Your task to perform on an android device: delete a single message in the gmail app Image 0: 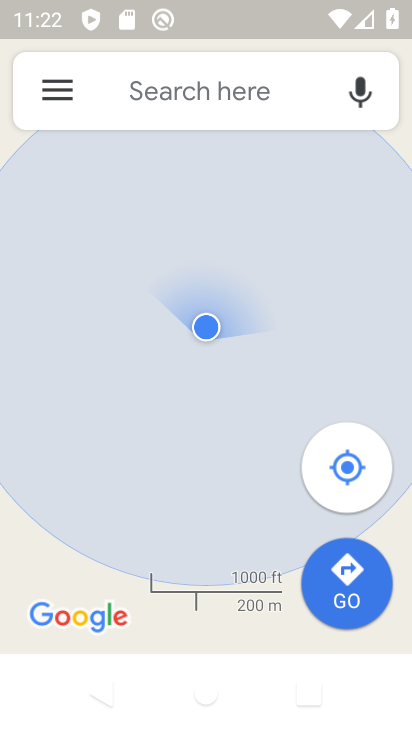
Step 0: press home button
Your task to perform on an android device: delete a single message in the gmail app Image 1: 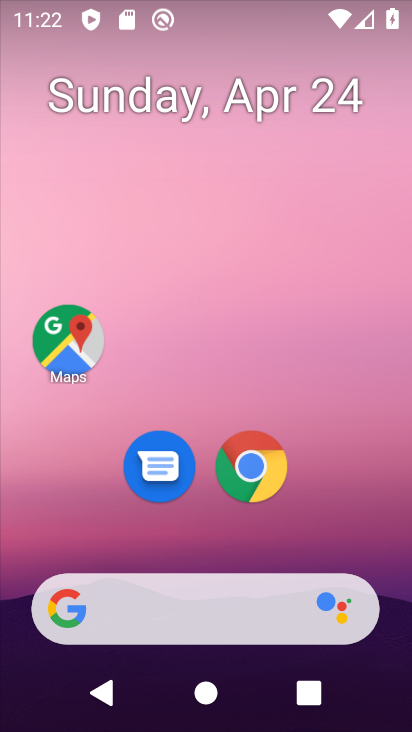
Step 1: drag from (352, 524) to (261, 14)
Your task to perform on an android device: delete a single message in the gmail app Image 2: 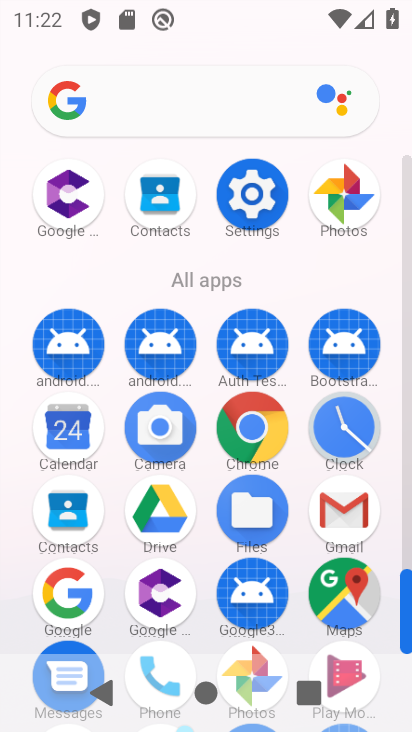
Step 2: click (338, 509)
Your task to perform on an android device: delete a single message in the gmail app Image 3: 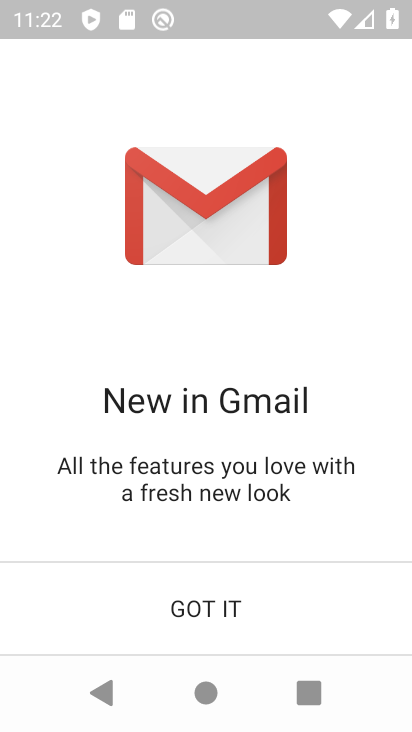
Step 3: click (243, 618)
Your task to perform on an android device: delete a single message in the gmail app Image 4: 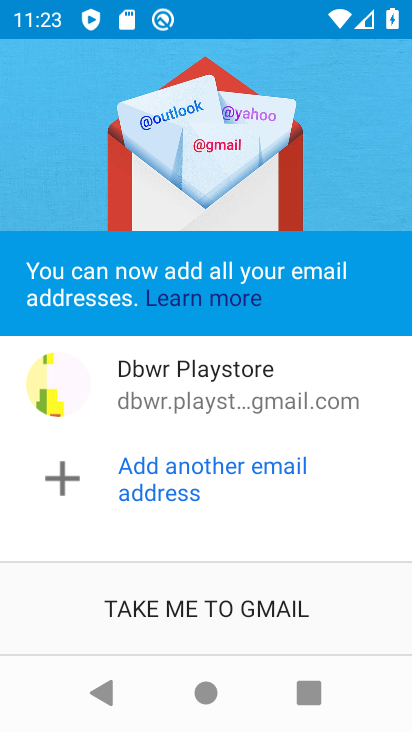
Step 4: click (214, 630)
Your task to perform on an android device: delete a single message in the gmail app Image 5: 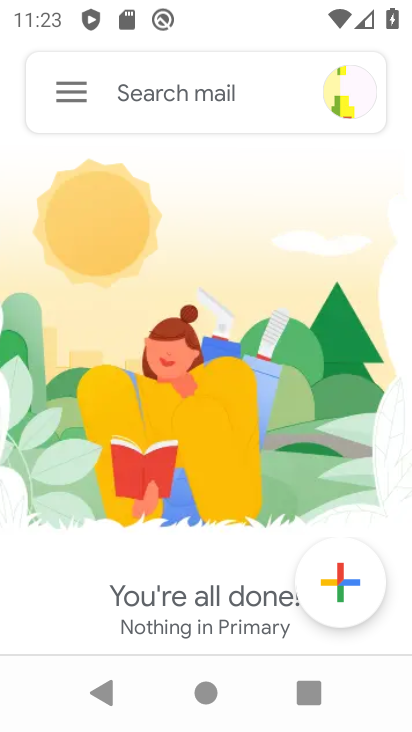
Step 5: click (59, 88)
Your task to perform on an android device: delete a single message in the gmail app Image 6: 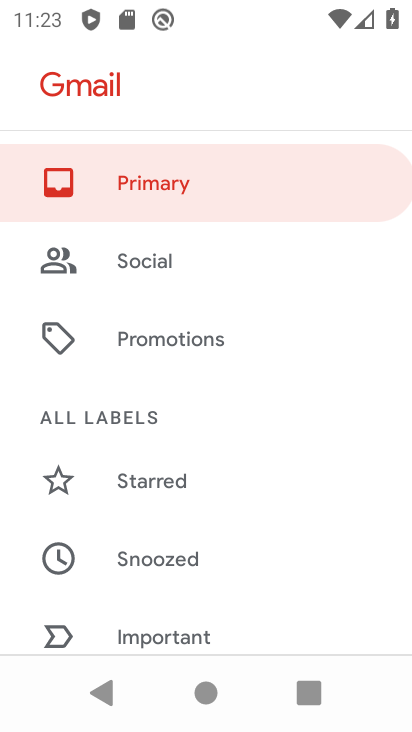
Step 6: drag from (227, 589) to (178, 90)
Your task to perform on an android device: delete a single message in the gmail app Image 7: 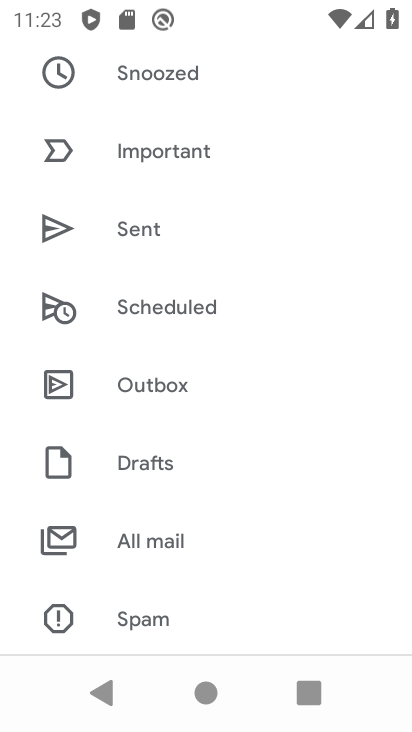
Step 7: click (168, 548)
Your task to perform on an android device: delete a single message in the gmail app Image 8: 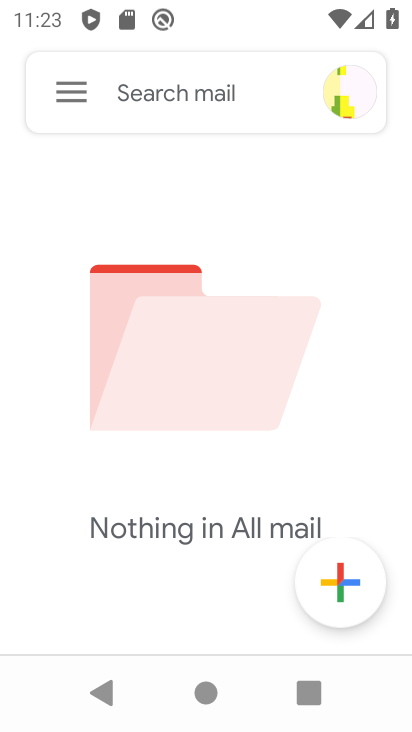
Step 8: task complete